Your task to perform on an android device: empty trash in the gmail app Image 0: 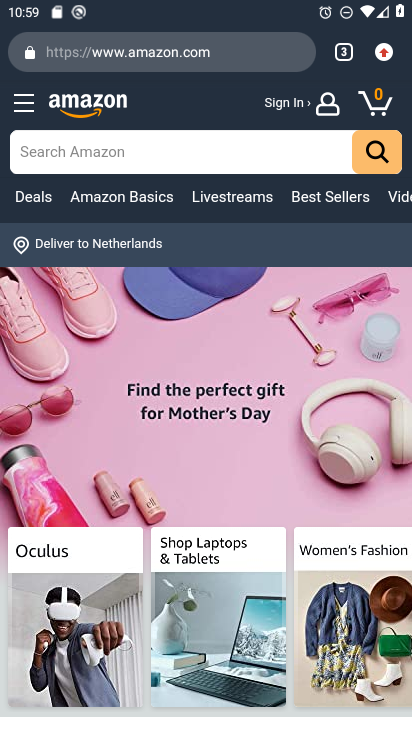
Step 0: press home button
Your task to perform on an android device: empty trash in the gmail app Image 1: 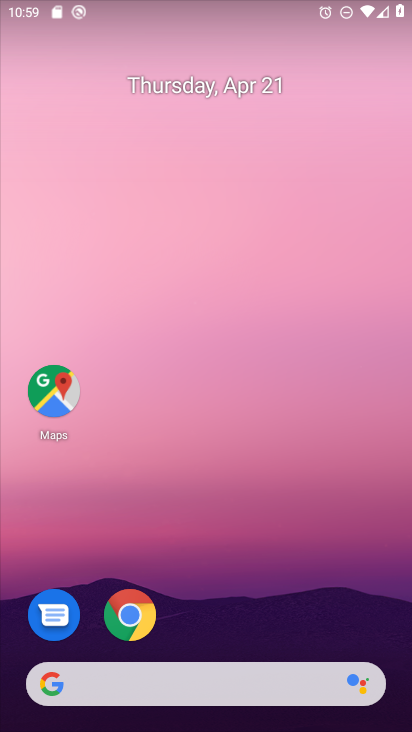
Step 1: drag from (226, 634) to (214, 145)
Your task to perform on an android device: empty trash in the gmail app Image 2: 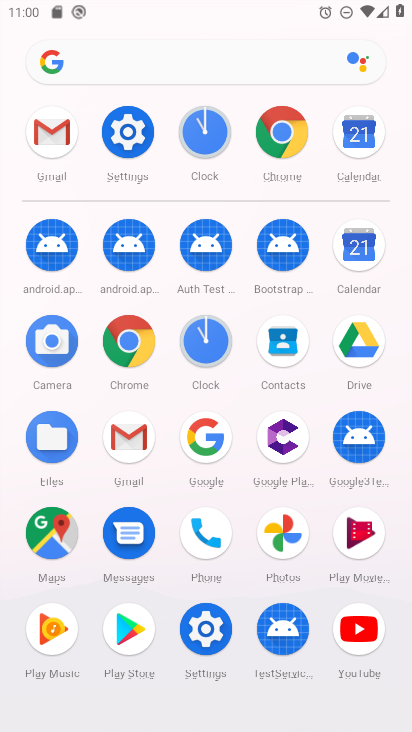
Step 2: click (126, 430)
Your task to perform on an android device: empty trash in the gmail app Image 3: 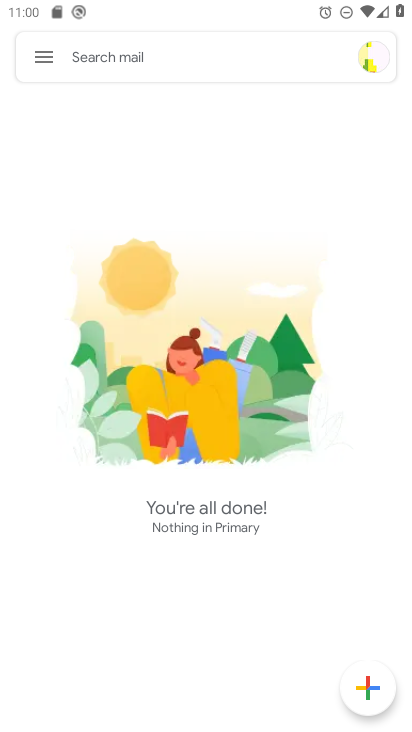
Step 3: click (44, 47)
Your task to perform on an android device: empty trash in the gmail app Image 4: 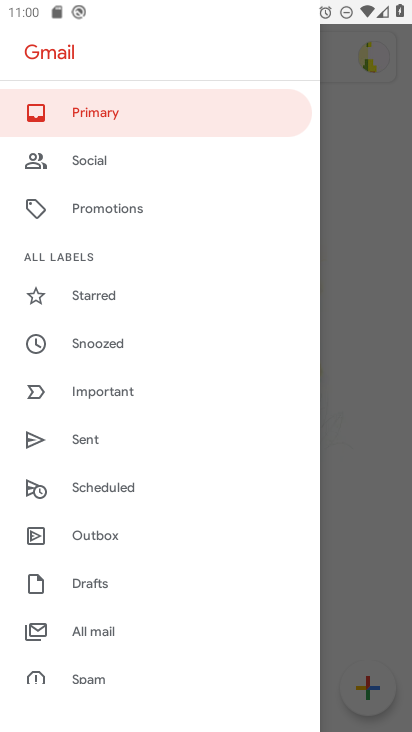
Step 4: drag from (93, 660) to (111, 281)
Your task to perform on an android device: empty trash in the gmail app Image 5: 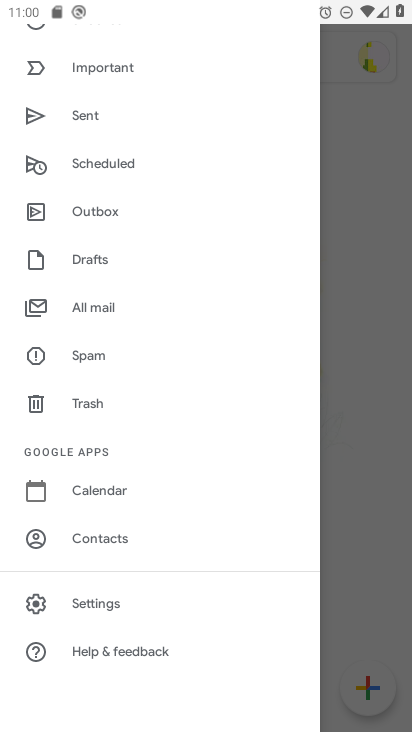
Step 5: click (57, 404)
Your task to perform on an android device: empty trash in the gmail app Image 6: 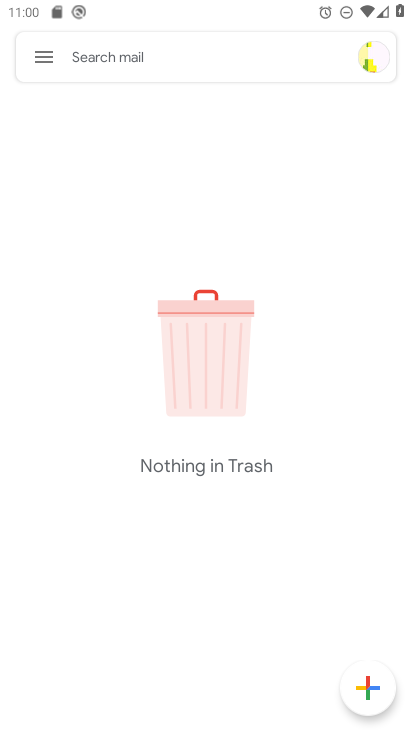
Step 6: task complete